Your task to perform on an android device: turn on the 12-hour format for clock Image 0: 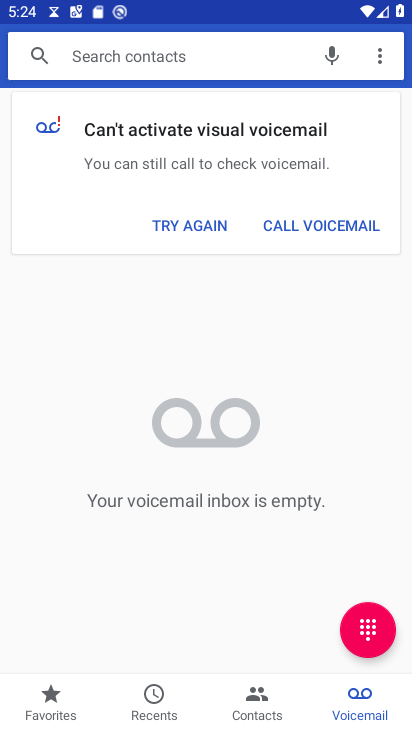
Step 0: press home button
Your task to perform on an android device: turn on the 12-hour format for clock Image 1: 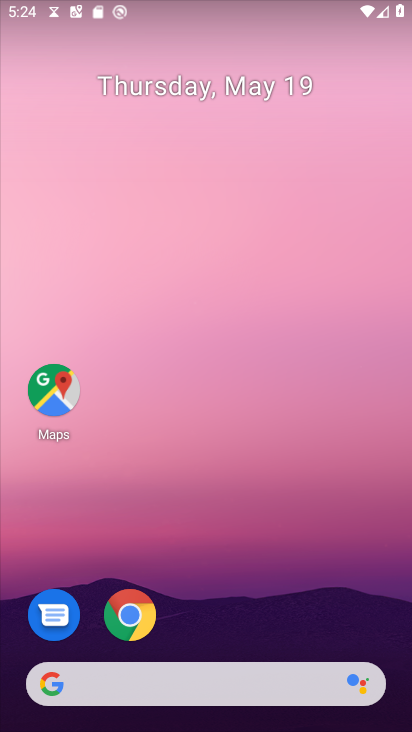
Step 1: drag from (315, 724) to (260, 82)
Your task to perform on an android device: turn on the 12-hour format for clock Image 2: 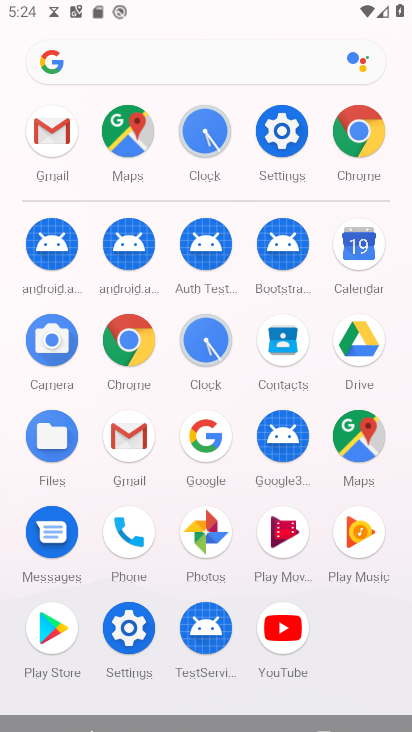
Step 2: click (204, 356)
Your task to perform on an android device: turn on the 12-hour format for clock Image 3: 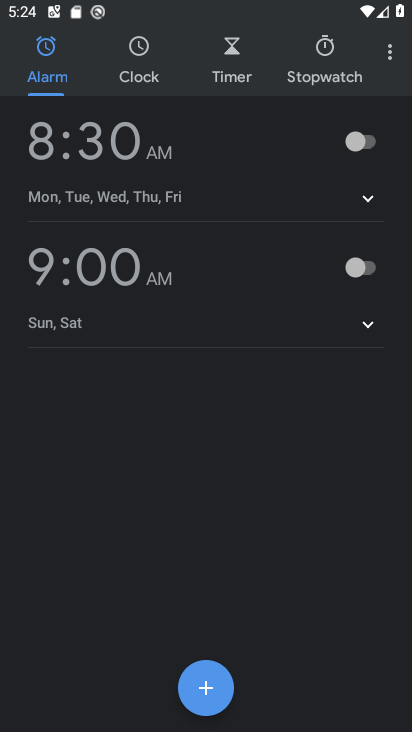
Step 3: click (375, 57)
Your task to perform on an android device: turn on the 12-hour format for clock Image 4: 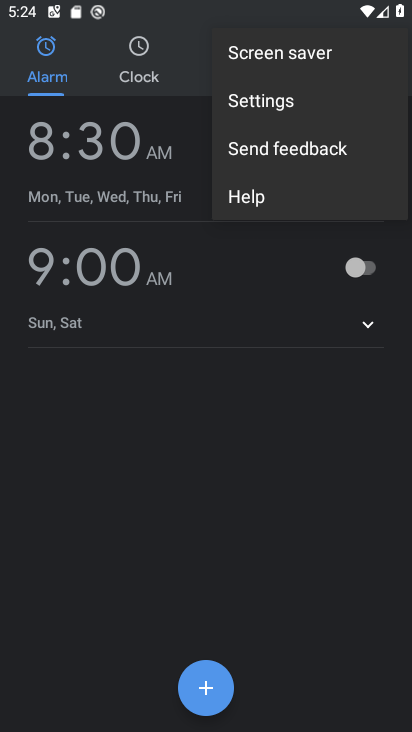
Step 4: click (268, 112)
Your task to perform on an android device: turn on the 12-hour format for clock Image 5: 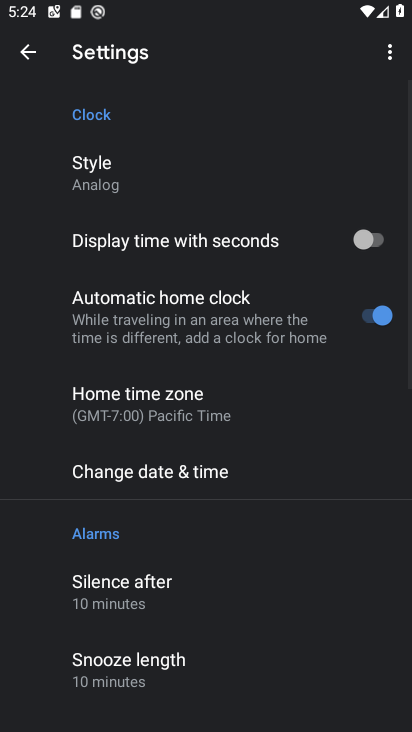
Step 5: drag from (282, 543) to (275, 303)
Your task to perform on an android device: turn on the 12-hour format for clock Image 6: 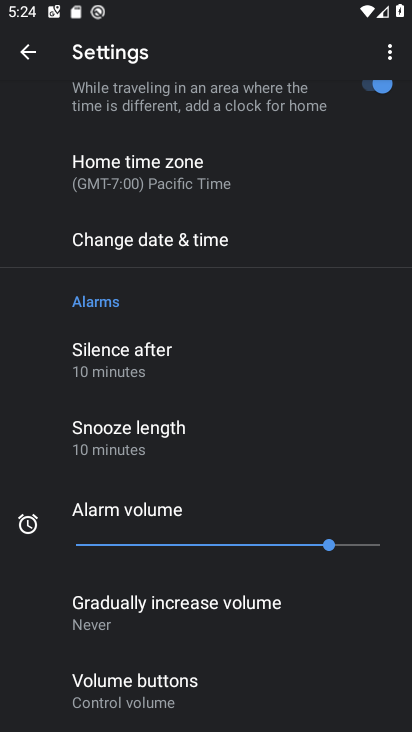
Step 6: click (204, 250)
Your task to perform on an android device: turn on the 12-hour format for clock Image 7: 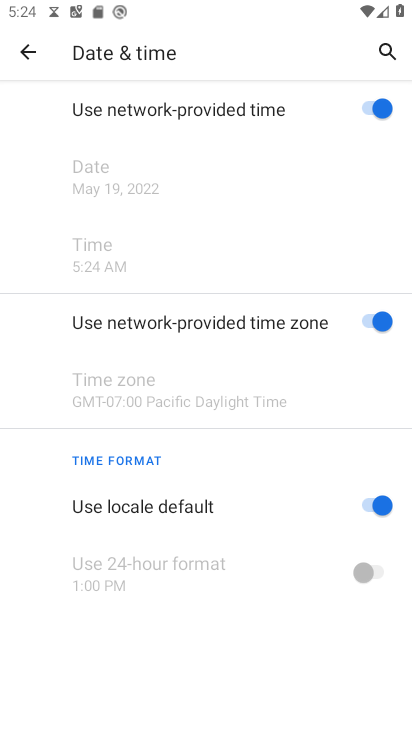
Step 7: click (368, 507)
Your task to perform on an android device: turn on the 12-hour format for clock Image 8: 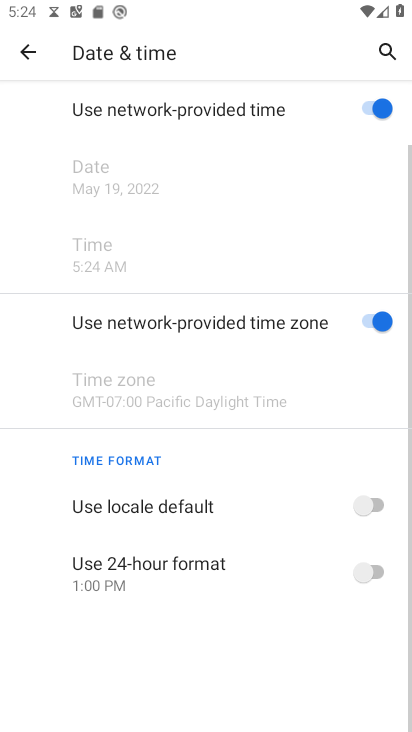
Step 8: task complete